Your task to perform on an android device: What's on my calendar tomorrow? Image 0: 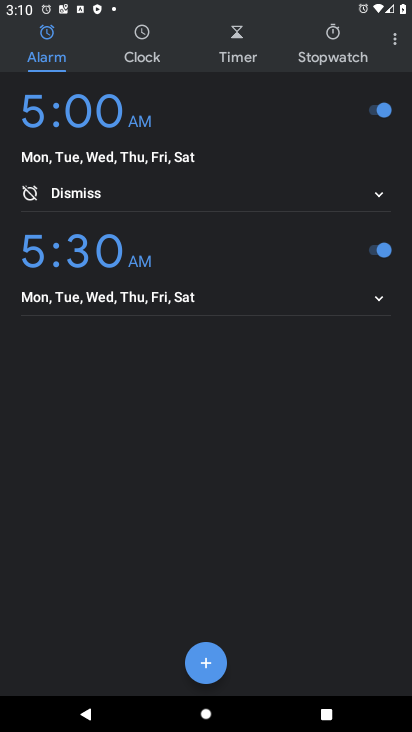
Step 0: press home button
Your task to perform on an android device: What's on my calendar tomorrow? Image 1: 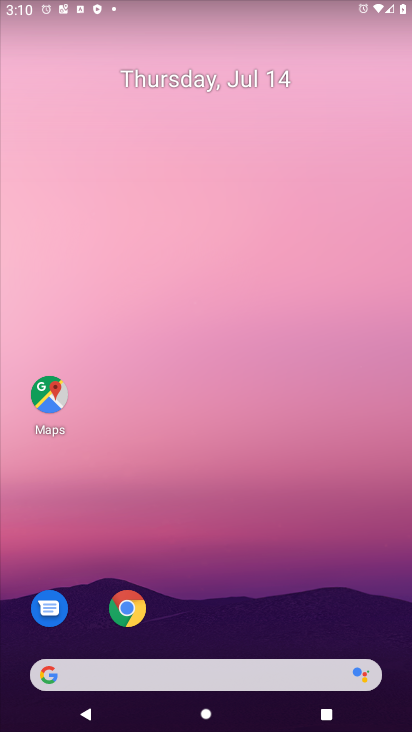
Step 1: drag from (386, 629) to (329, 47)
Your task to perform on an android device: What's on my calendar tomorrow? Image 2: 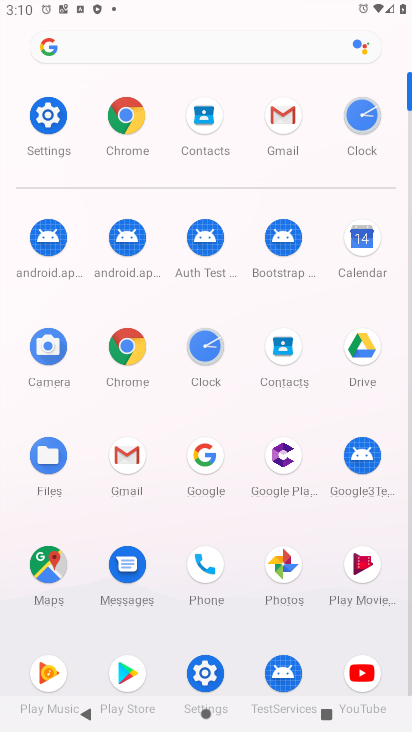
Step 2: click (363, 235)
Your task to perform on an android device: What's on my calendar tomorrow? Image 3: 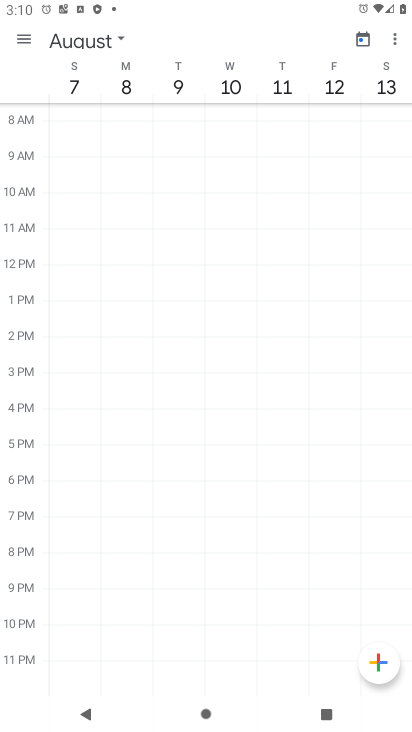
Step 3: click (23, 37)
Your task to perform on an android device: What's on my calendar tomorrow? Image 4: 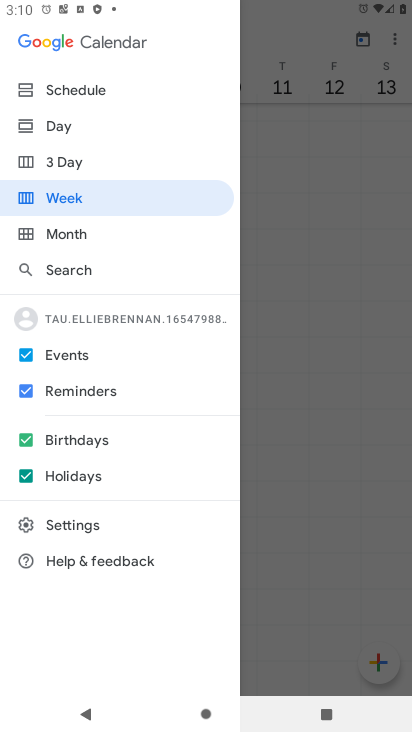
Step 4: click (56, 123)
Your task to perform on an android device: What's on my calendar tomorrow? Image 5: 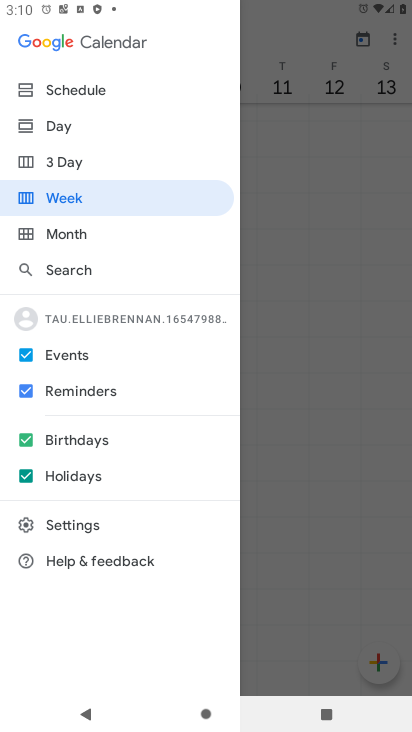
Step 5: click (51, 121)
Your task to perform on an android device: What's on my calendar tomorrow? Image 6: 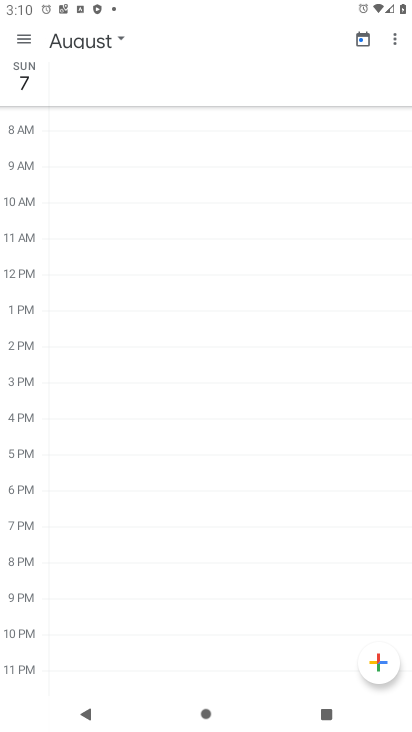
Step 6: click (118, 36)
Your task to perform on an android device: What's on my calendar tomorrow? Image 7: 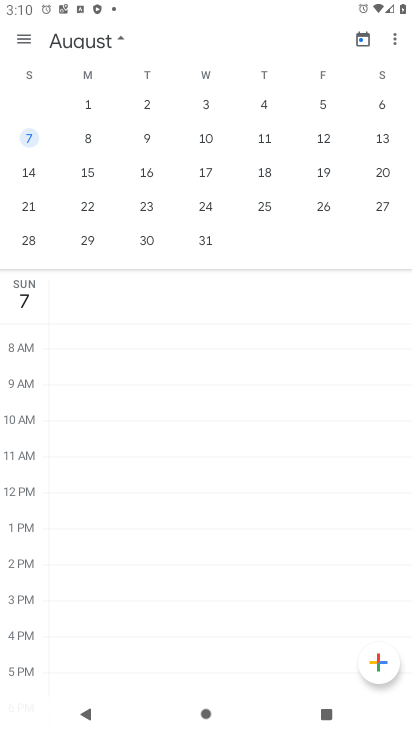
Step 7: drag from (25, 210) to (372, 179)
Your task to perform on an android device: What's on my calendar tomorrow? Image 8: 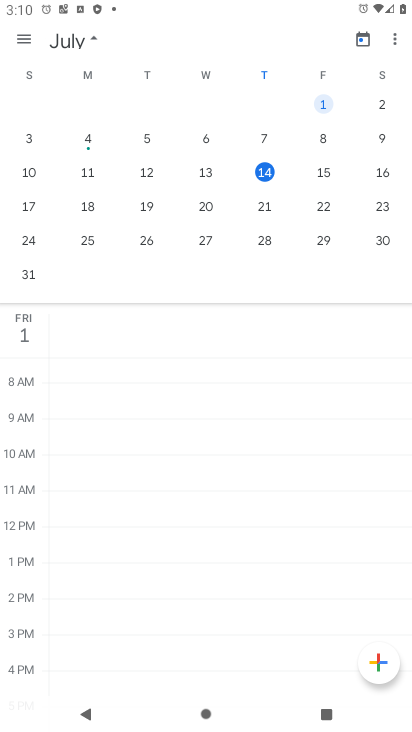
Step 8: click (323, 169)
Your task to perform on an android device: What's on my calendar tomorrow? Image 9: 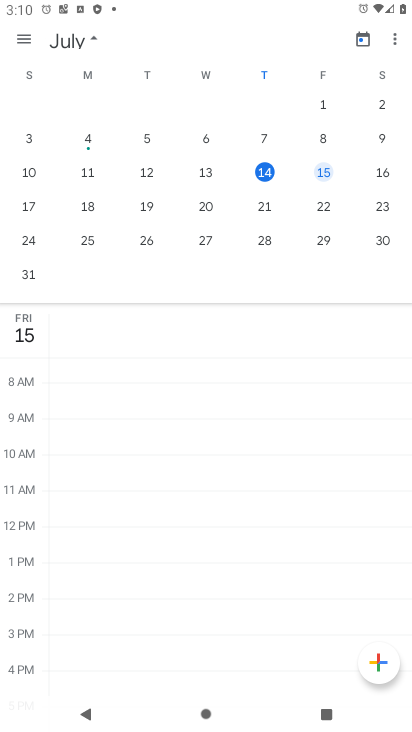
Step 9: task complete